Your task to perform on an android device: What's the latest news in planetary science? Image 0: 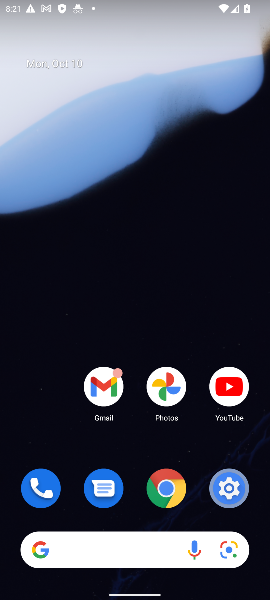
Step 0: drag from (133, 472) to (247, 12)
Your task to perform on an android device: What's the latest news in planetary science? Image 1: 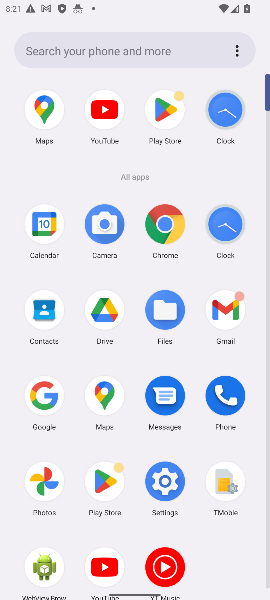
Step 1: click (160, 227)
Your task to perform on an android device: What's the latest news in planetary science? Image 2: 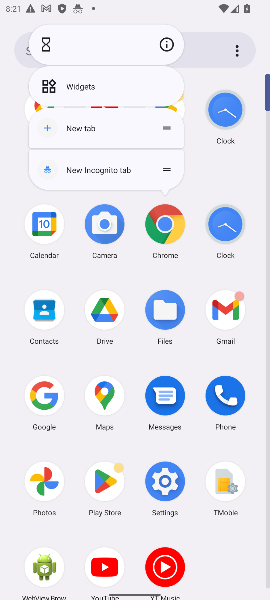
Step 2: type "What's the latest news in planetary science"
Your task to perform on an android device: What's the latest news in planetary science? Image 3: 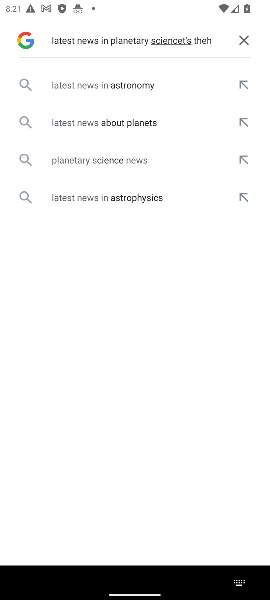
Step 3: type "?"
Your task to perform on an android device: What's the latest news in planetary science? Image 4: 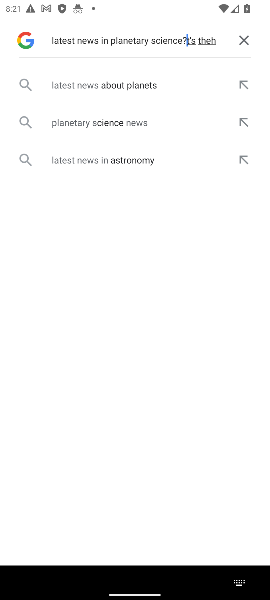
Step 4: press enter
Your task to perform on an android device: What's the latest news in planetary science? Image 5: 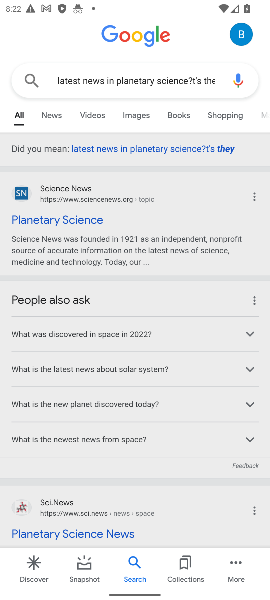
Step 5: click (54, 221)
Your task to perform on an android device: What's the latest news in planetary science? Image 6: 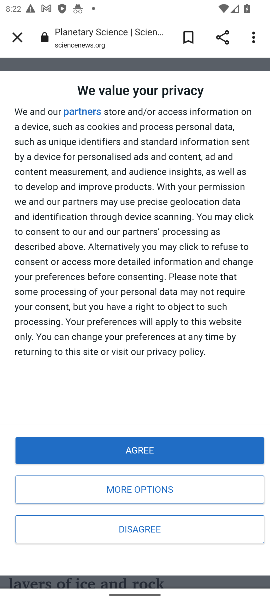
Step 6: click (151, 452)
Your task to perform on an android device: What's the latest news in planetary science? Image 7: 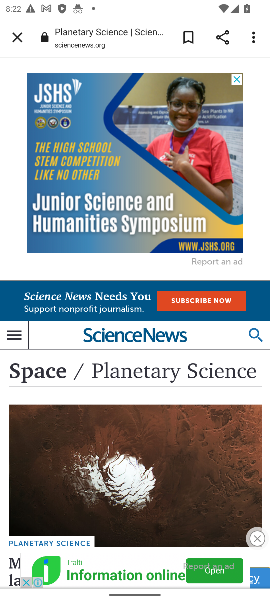
Step 7: task complete